Your task to perform on an android device: toggle sleep mode Image 0: 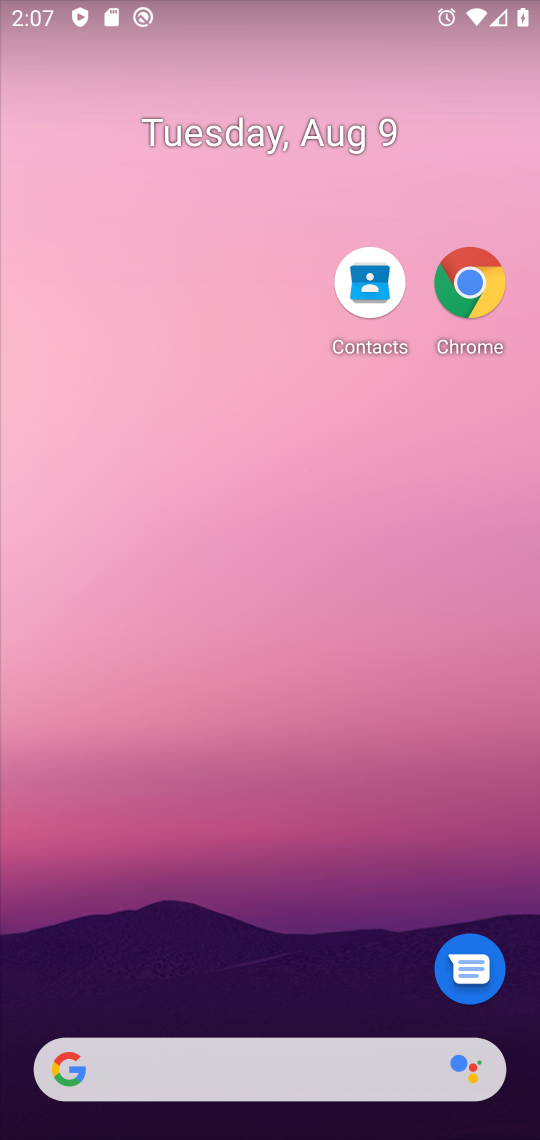
Step 0: drag from (315, 961) to (319, 230)
Your task to perform on an android device: toggle sleep mode Image 1: 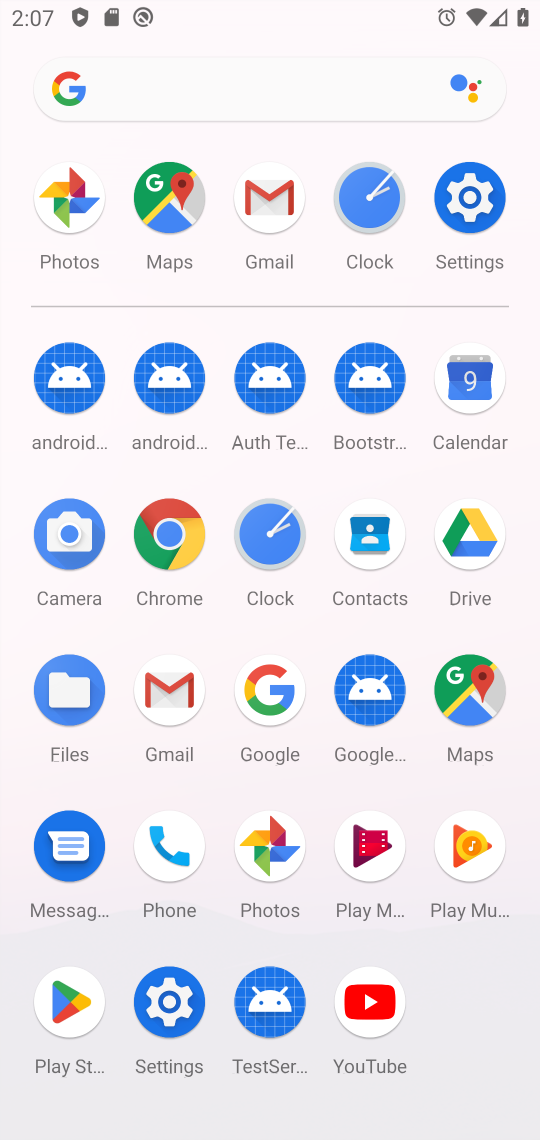
Step 1: click (177, 999)
Your task to perform on an android device: toggle sleep mode Image 2: 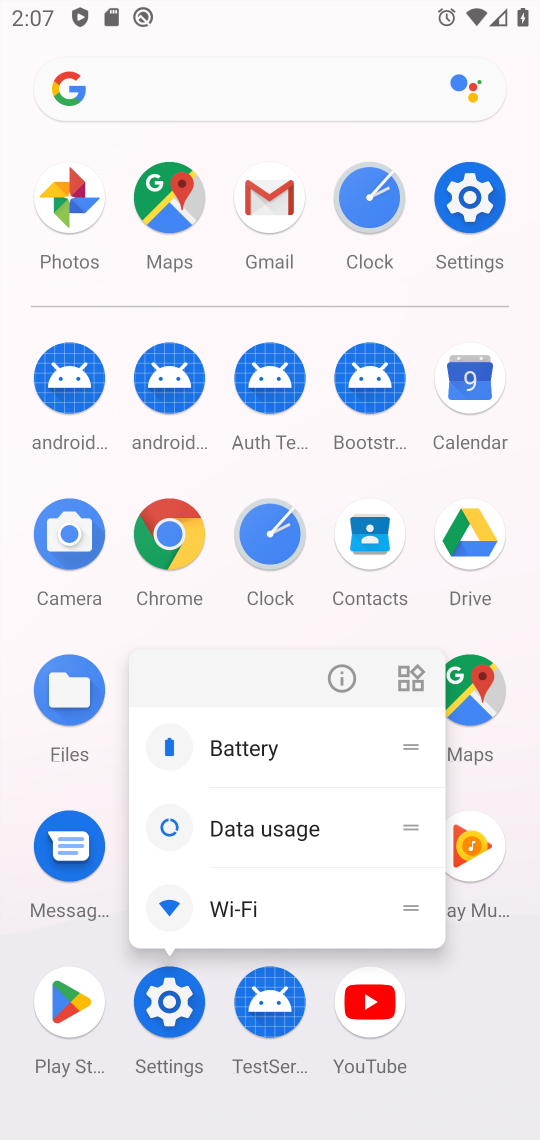
Step 2: click (339, 681)
Your task to perform on an android device: toggle sleep mode Image 3: 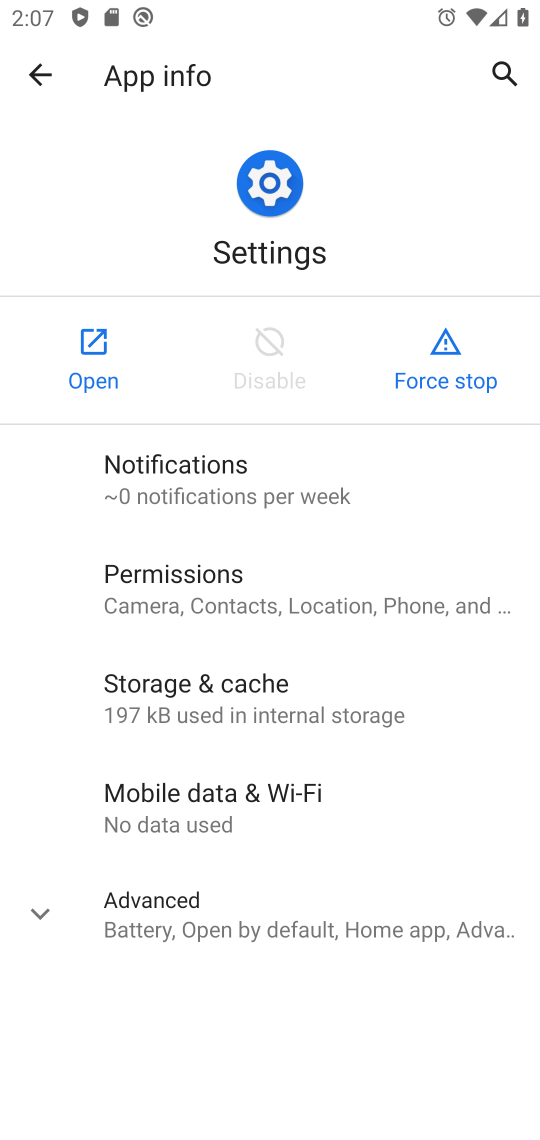
Step 3: click (84, 361)
Your task to perform on an android device: toggle sleep mode Image 4: 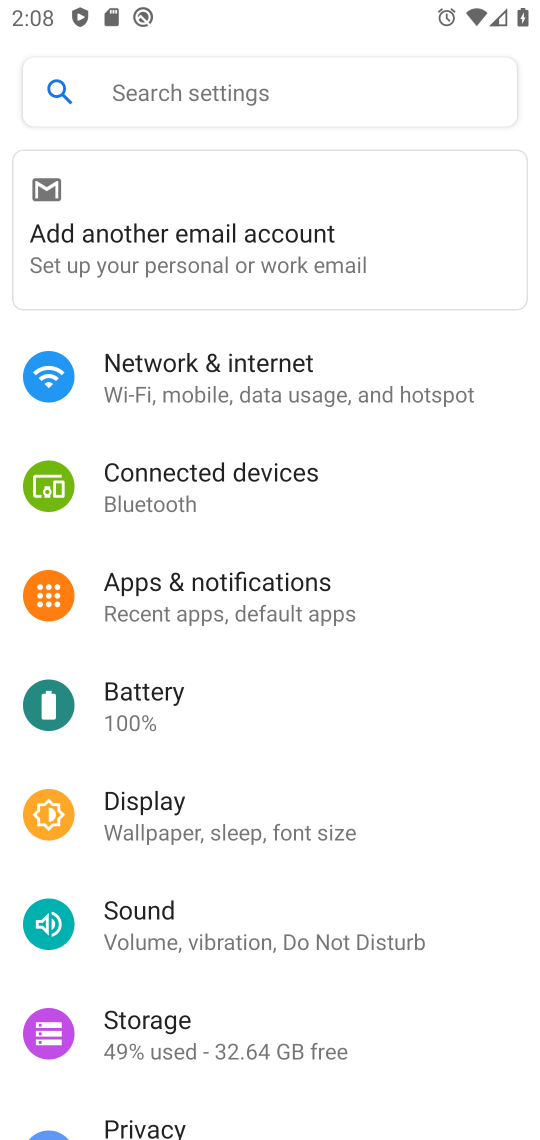
Step 4: click (207, 811)
Your task to perform on an android device: toggle sleep mode Image 5: 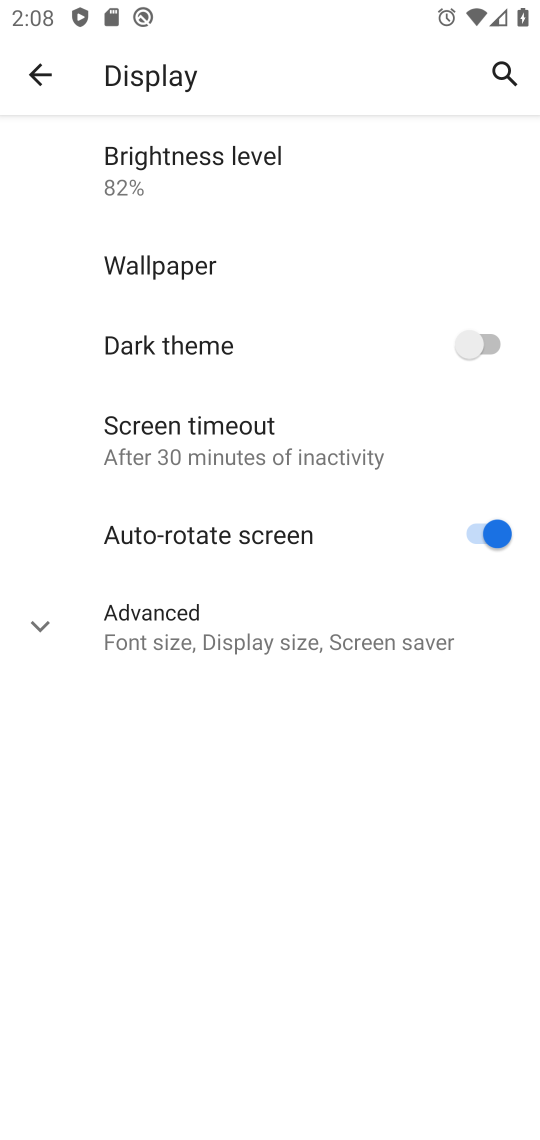
Step 5: click (312, 425)
Your task to perform on an android device: toggle sleep mode Image 6: 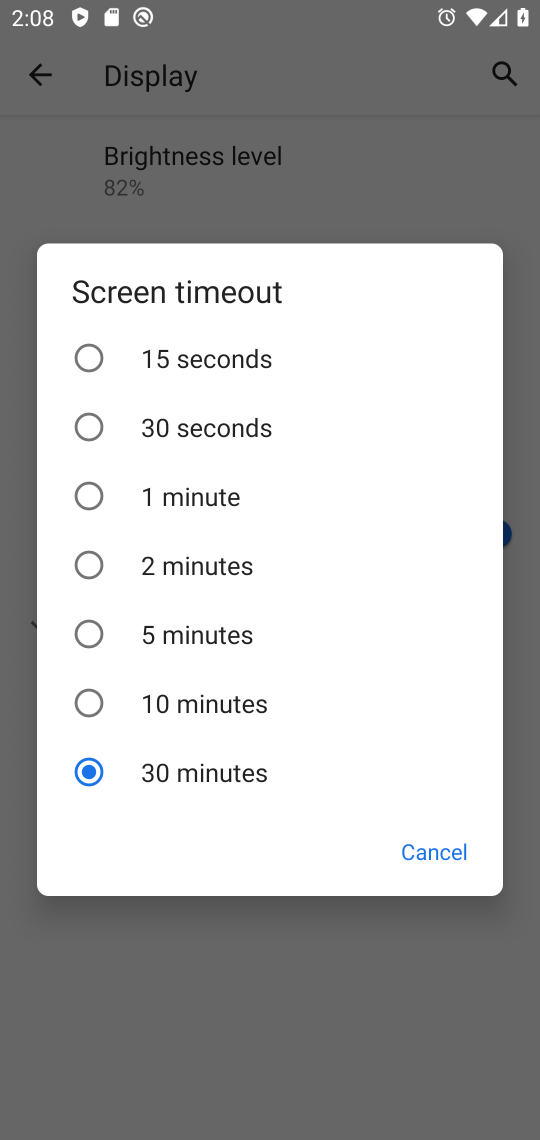
Step 6: click (160, 420)
Your task to perform on an android device: toggle sleep mode Image 7: 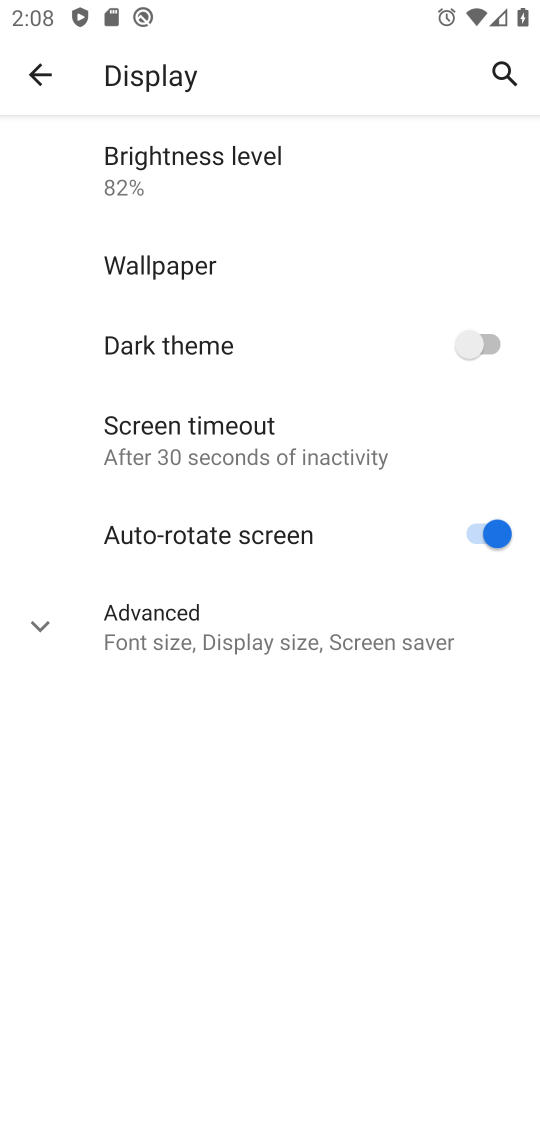
Step 7: task complete